Your task to perform on an android device: clear all cookies in the chrome app Image 0: 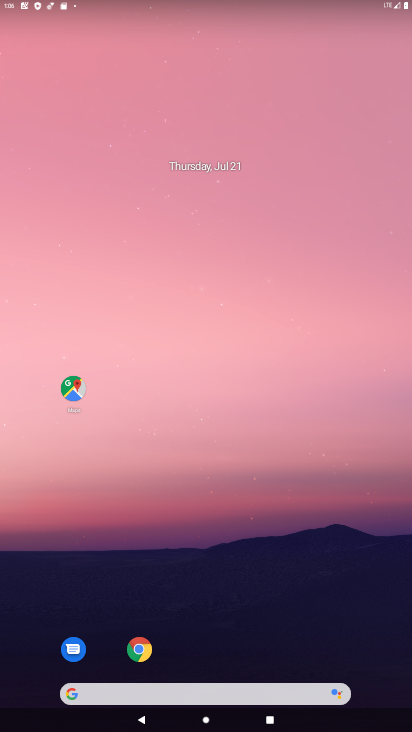
Step 0: click (131, 645)
Your task to perform on an android device: clear all cookies in the chrome app Image 1: 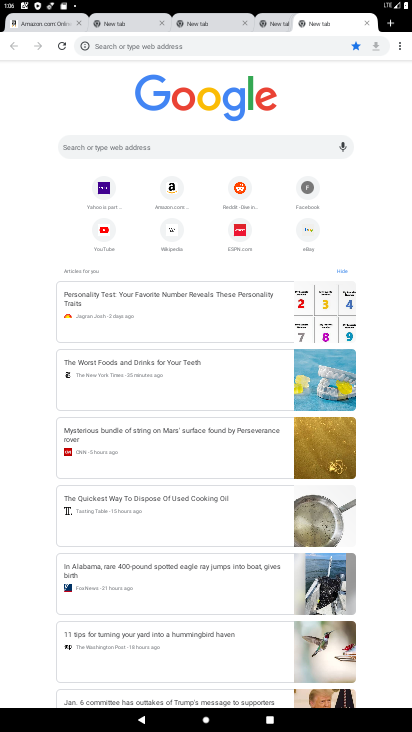
Step 1: click (397, 47)
Your task to perform on an android device: clear all cookies in the chrome app Image 2: 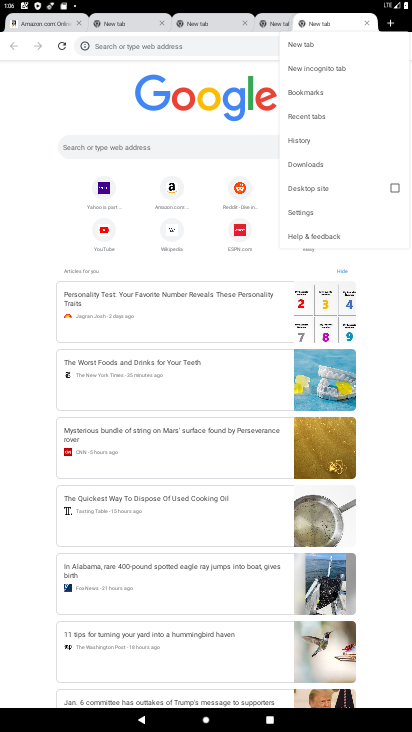
Step 2: click (309, 215)
Your task to perform on an android device: clear all cookies in the chrome app Image 3: 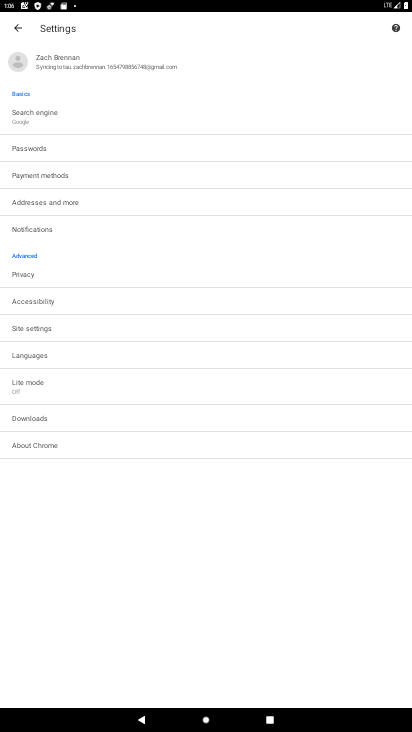
Step 3: click (19, 271)
Your task to perform on an android device: clear all cookies in the chrome app Image 4: 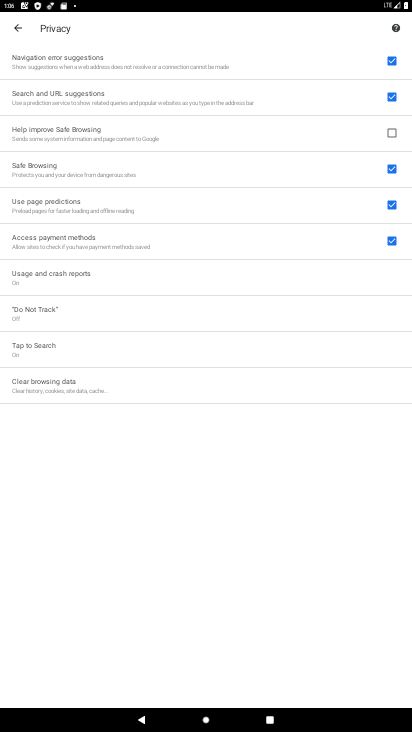
Step 4: click (72, 385)
Your task to perform on an android device: clear all cookies in the chrome app Image 5: 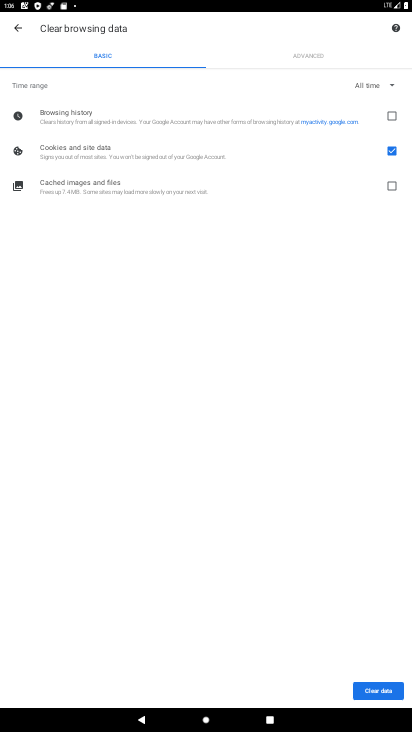
Step 5: click (387, 114)
Your task to perform on an android device: clear all cookies in the chrome app Image 6: 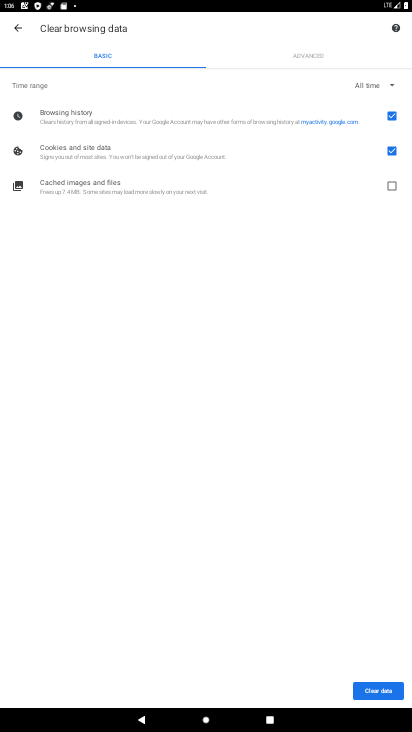
Step 6: click (386, 187)
Your task to perform on an android device: clear all cookies in the chrome app Image 7: 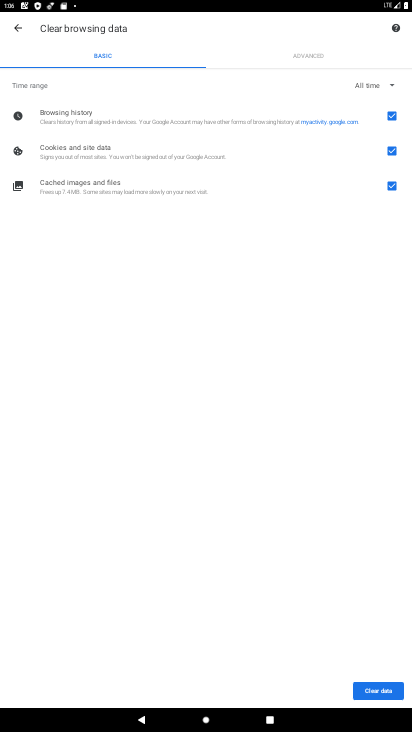
Step 7: click (363, 685)
Your task to perform on an android device: clear all cookies in the chrome app Image 8: 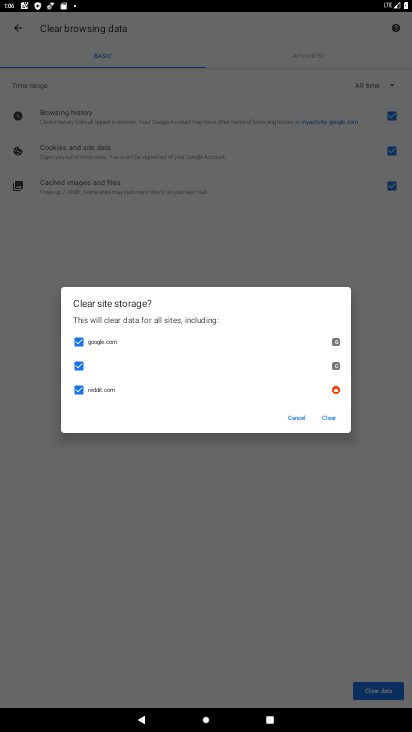
Step 8: click (321, 417)
Your task to perform on an android device: clear all cookies in the chrome app Image 9: 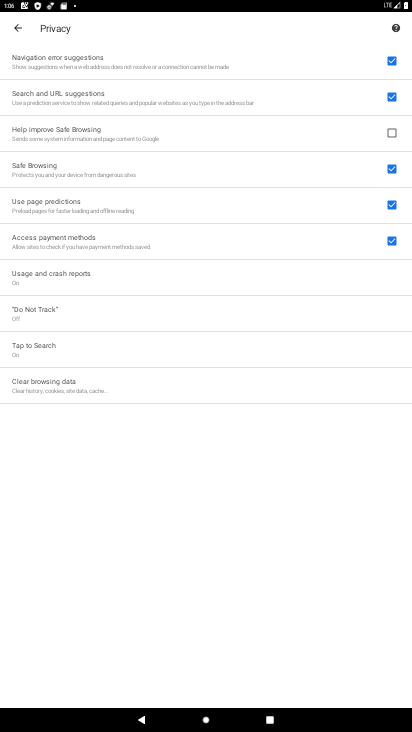
Step 9: task complete